Your task to perform on an android device: Open internet settings Image 0: 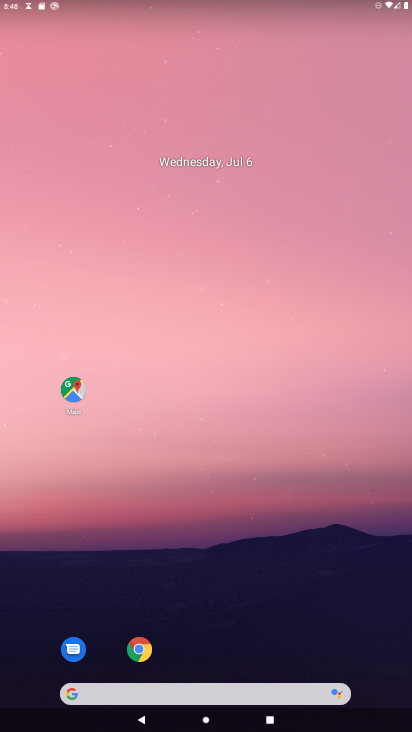
Step 0: drag from (275, 688) to (201, 214)
Your task to perform on an android device: Open internet settings Image 1: 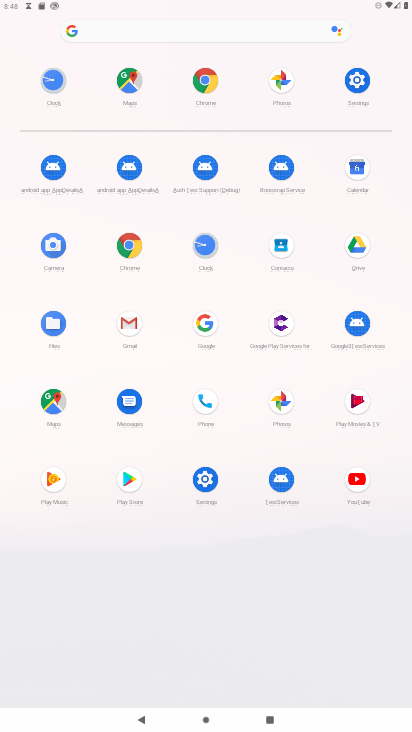
Step 1: click (368, 86)
Your task to perform on an android device: Open internet settings Image 2: 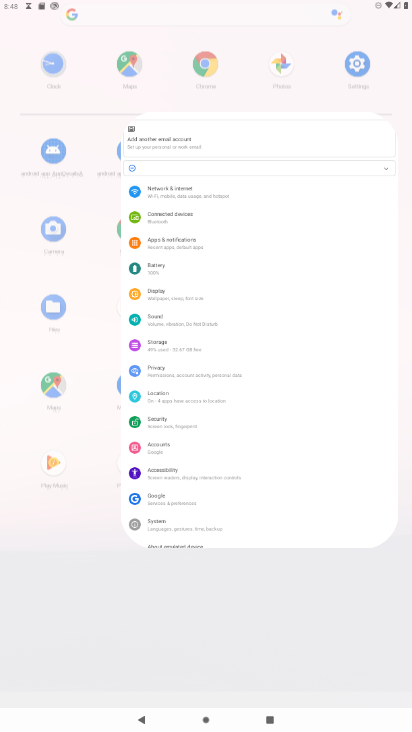
Step 2: click (368, 86)
Your task to perform on an android device: Open internet settings Image 3: 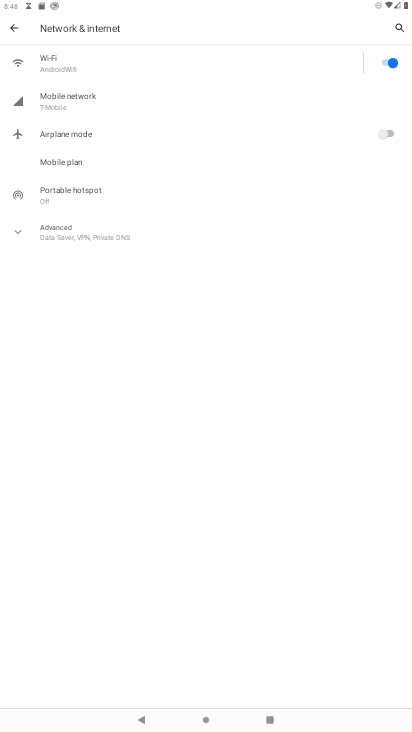
Step 3: task complete